Your task to perform on an android device: Open eBay Image 0: 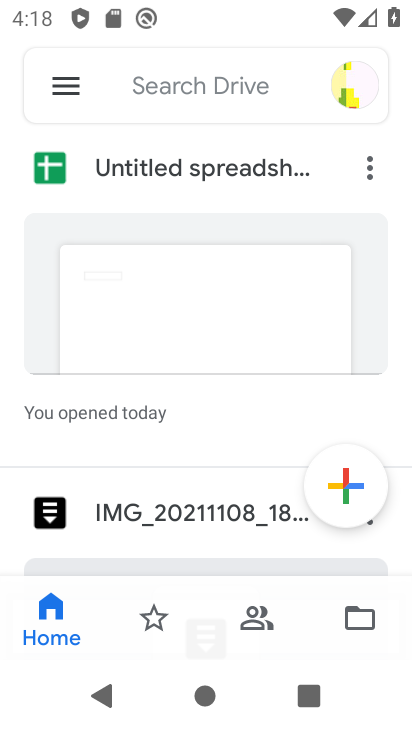
Step 0: press home button
Your task to perform on an android device: Open eBay Image 1: 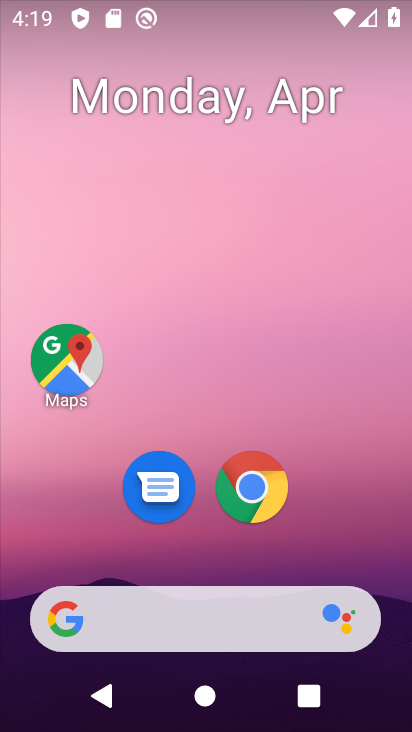
Step 1: drag from (366, 532) to (355, 106)
Your task to perform on an android device: Open eBay Image 2: 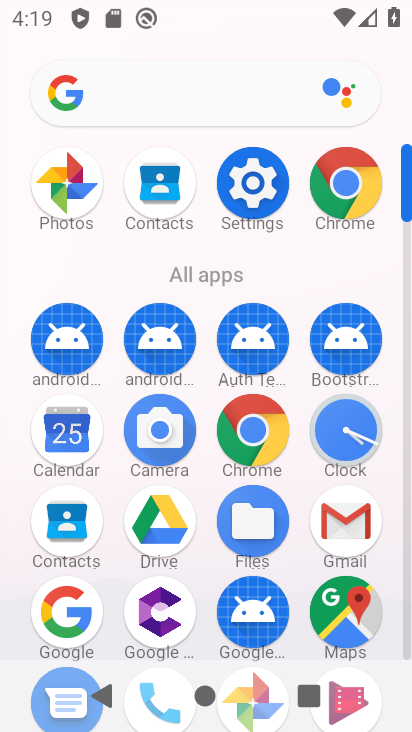
Step 2: click (360, 191)
Your task to perform on an android device: Open eBay Image 3: 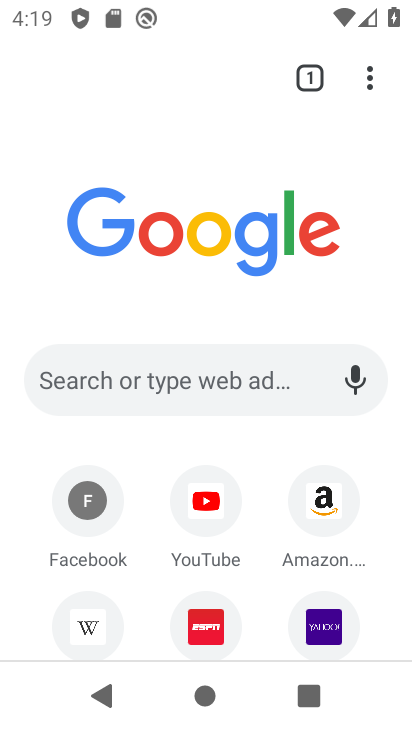
Step 3: click (227, 385)
Your task to perform on an android device: Open eBay Image 4: 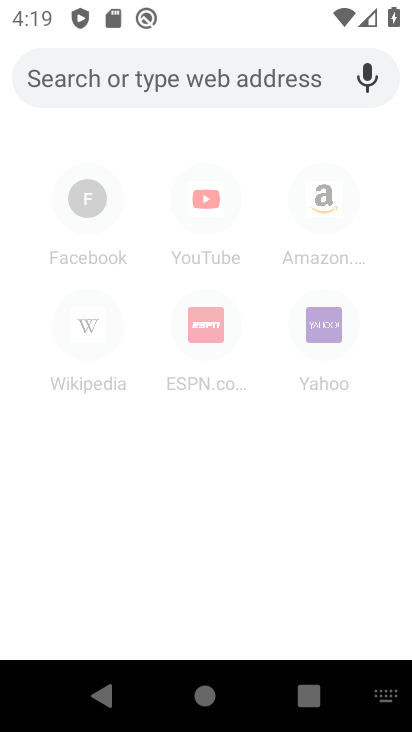
Step 4: type "ebay"
Your task to perform on an android device: Open eBay Image 5: 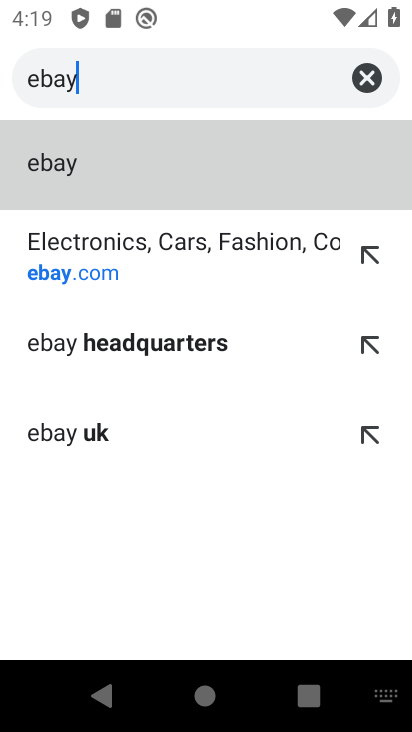
Step 5: click (192, 177)
Your task to perform on an android device: Open eBay Image 6: 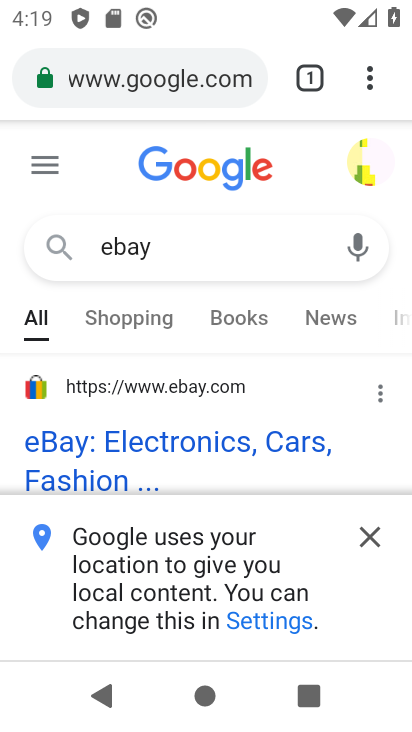
Step 6: task complete